Your task to perform on an android device: move a message to another label in the gmail app Image 0: 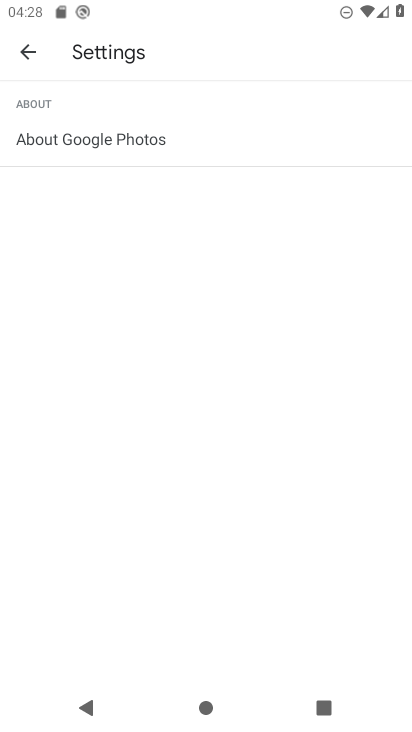
Step 0: press home button
Your task to perform on an android device: move a message to another label in the gmail app Image 1: 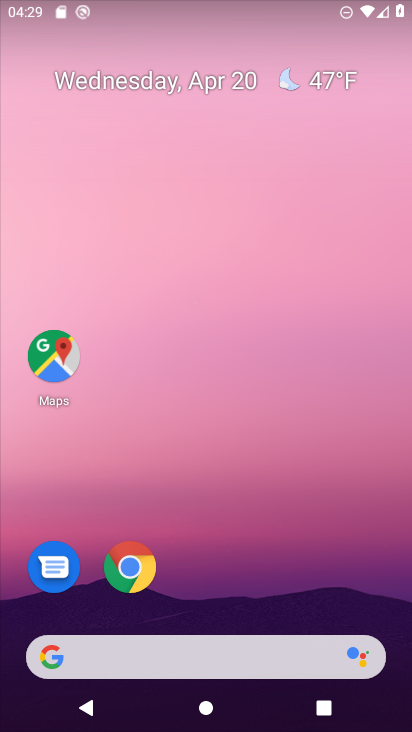
Step 1: drag from (175, 616) to (190, 119)
Your task to perform on an android device: move a message to another label in the gmail app Image 2: 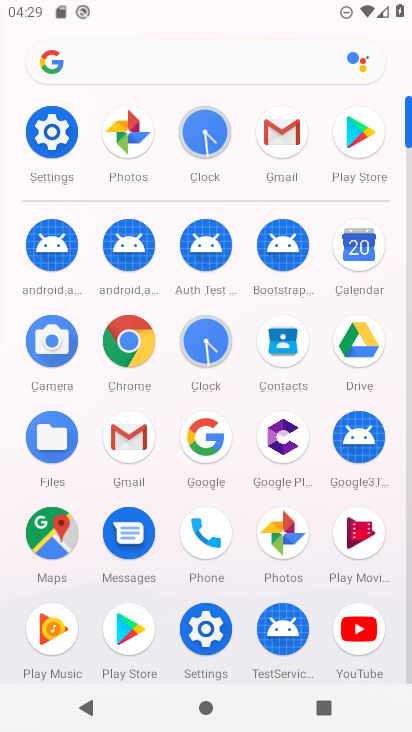
Step 2: click (134, 433)
Your task to perform on an android device: move a message to another label in the gmail app Image 3: 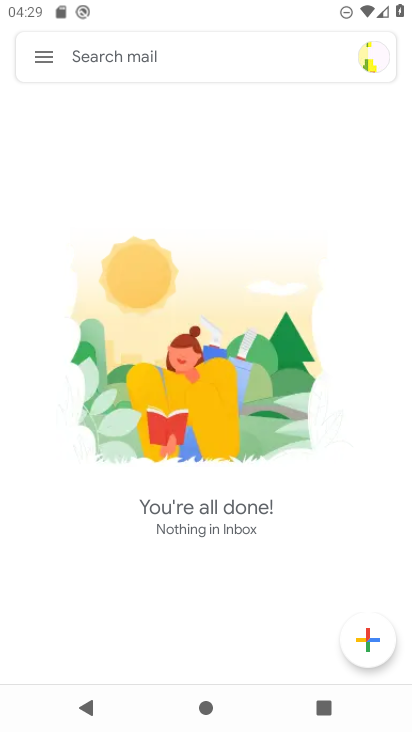
Step 3: task complete